Your task to perform on an android device: Check the news Image 0: 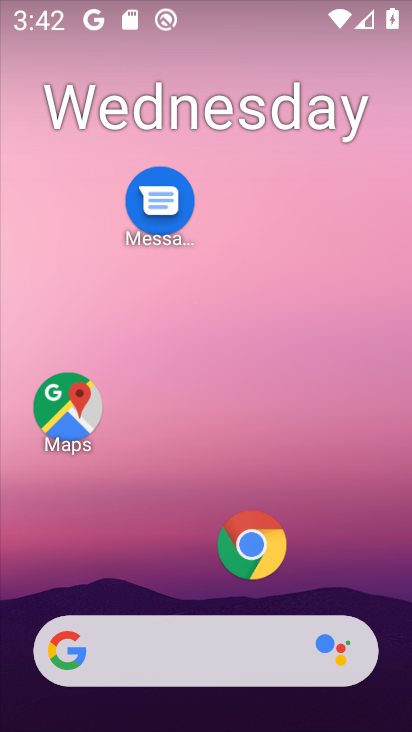
Step 0: click (219, 642)
Your task to perform on an android device: Check the news Image 1: 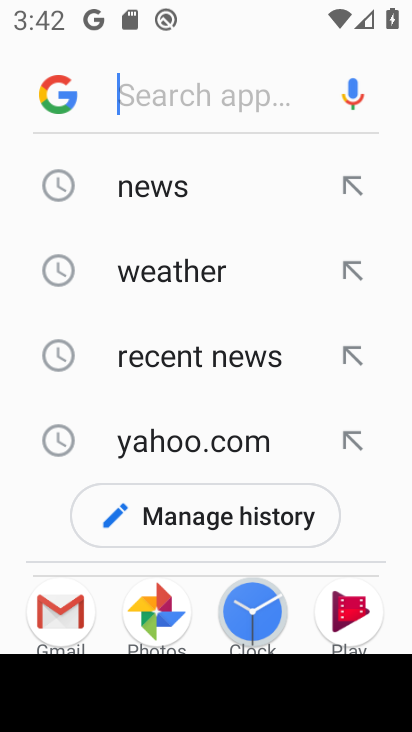
Step 1: click (209, 204)
Your task to perform on an android device: Check the news Image 2: 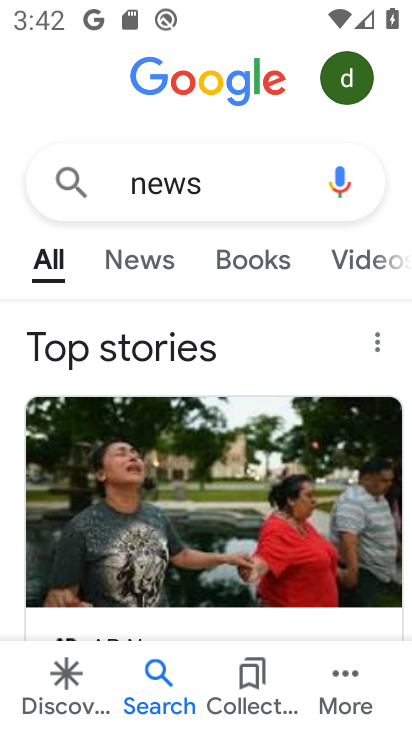
Step 2: click (146, 251)
Your task to perform on an android device: Check the news Image 3: 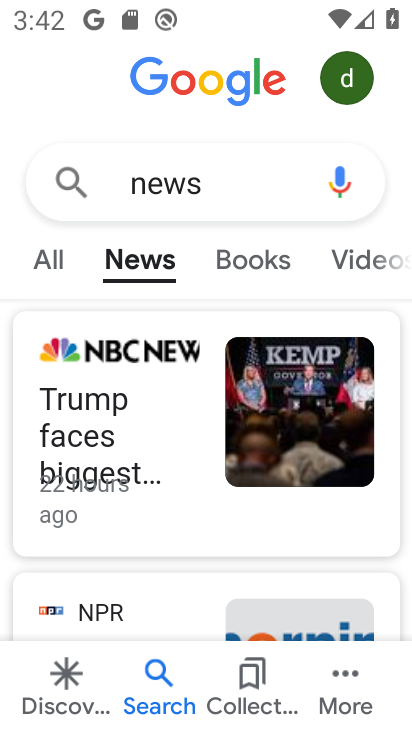
Step 3: task complete